Your task to perform on an android device: Go to ESPN.com Image 0: 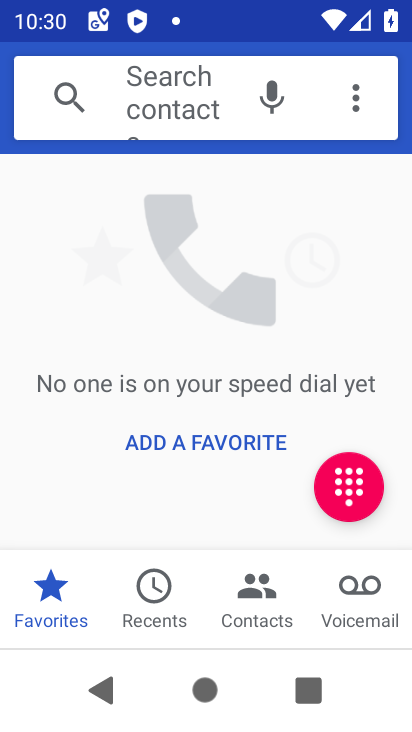
Step 0: press home button
Your task to perform on an android device: Go to ESPN.com Image 1: 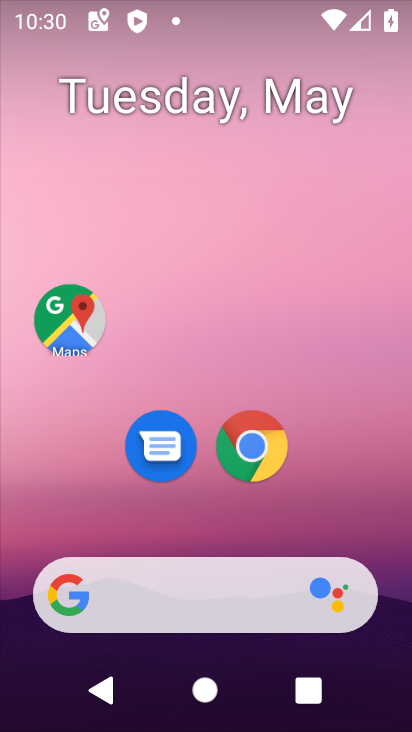
Step 1: click (270, 427)
Your task to perform on an android device: Go to ESPN.com Image 2: 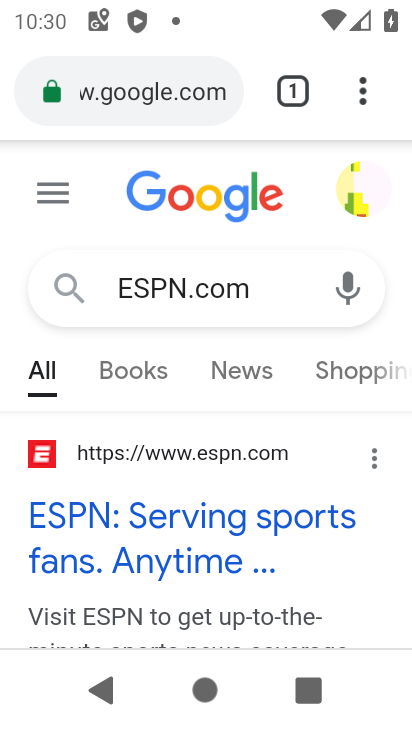
Step 2: click (168, 520)
Your task to perform on an android device: Go to ESPN.com Image 3: 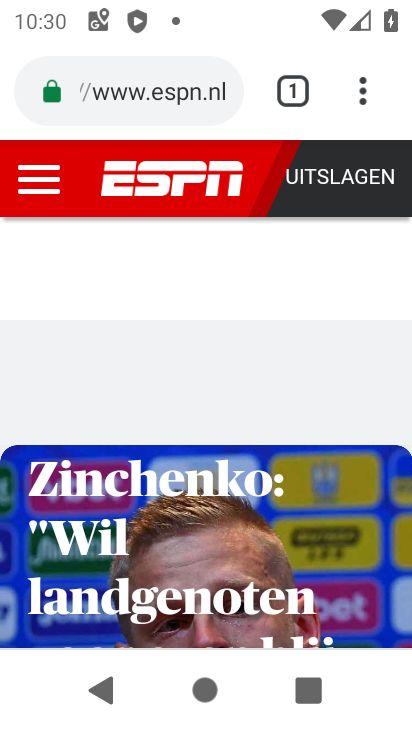
Step 3: task complete